Your task to perform on an android device: toggle translation in the chrome app Image 0: 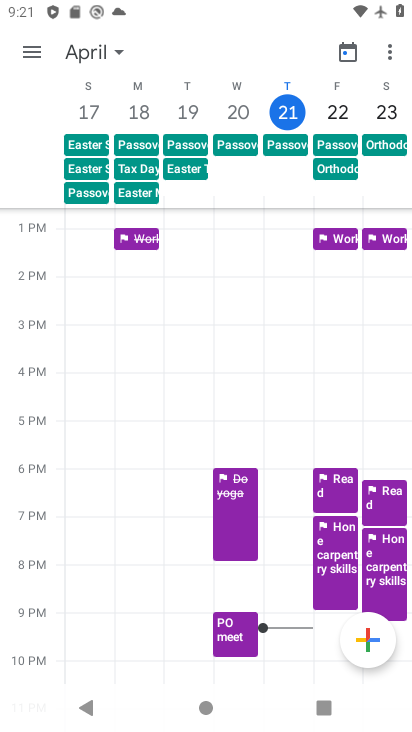
Step 0: press home button
Your task to perform on an android device: toggle translation in the chrome app Image 1: 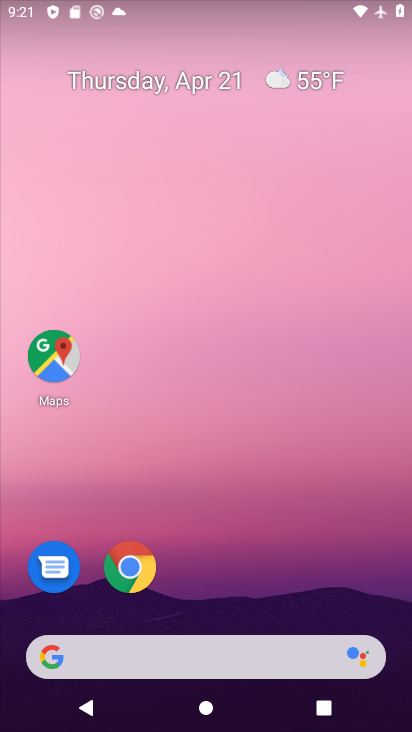
Step 1: click (126, 564)
Your task to perform on an android device: toggle translation in the chrome app Image 2: 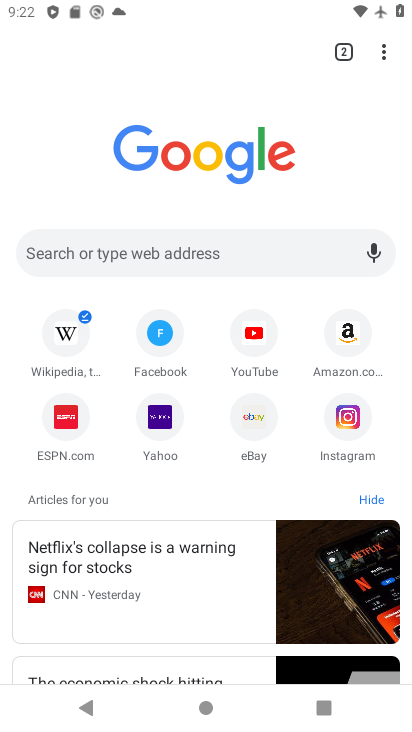
Step 2: click (384, 58)
Your task to perform on an android device: toggle translation in the chrome app Image 3: 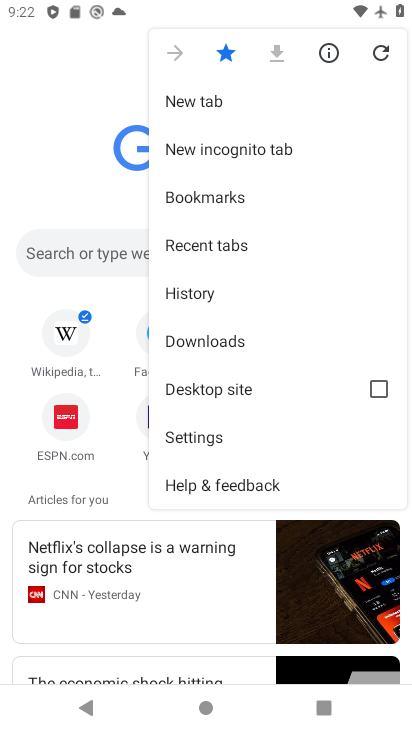
Step 3: click (208, 439)
Your task to perform on an android device: toggle translation in the chrome app Image 4: 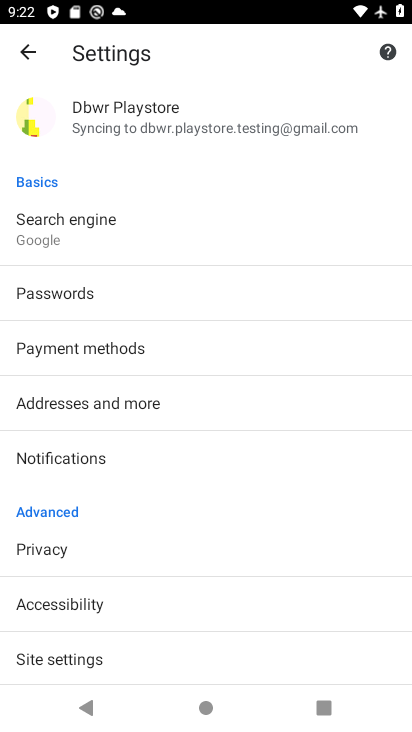
Step 4: drag from (195, 581) to (280, 262)
Your task to perform on an android device: toggle translation in the chrome app Image 5: 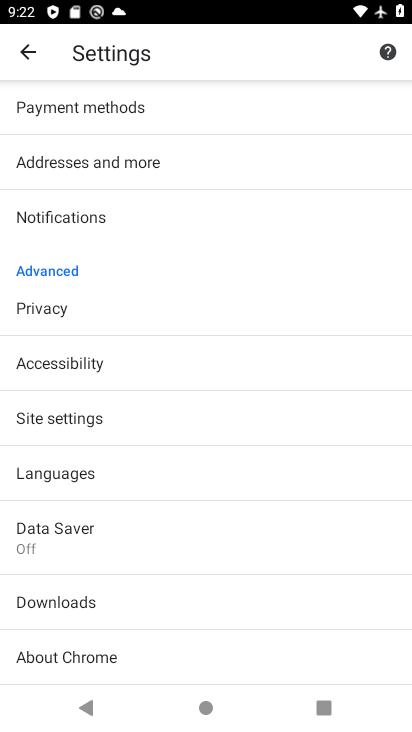
Step 5: click (41, 469)
Your task to perform on an android device: toggle translation in the chrome app Image 6: 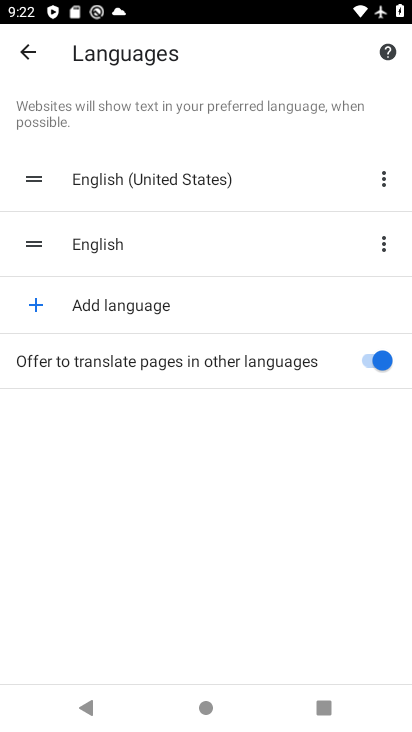
Step 6: click (364, 359)
Your task to perform on an android device: toggle translation in the chrome app Image 7: 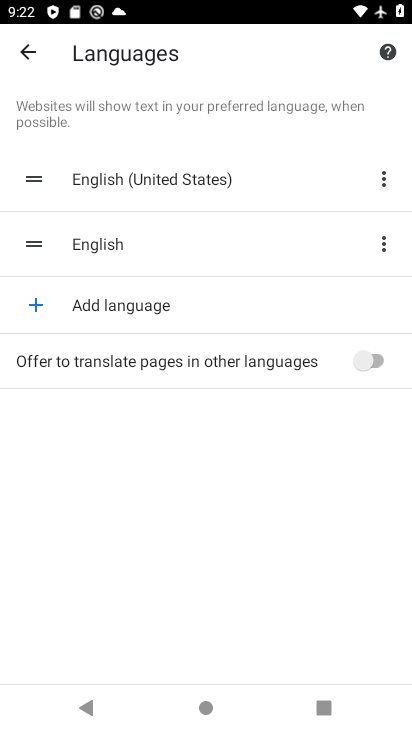
Step 7: task complete